Your task to perform on an android device: move a message to another label in the gmail app Image 0: 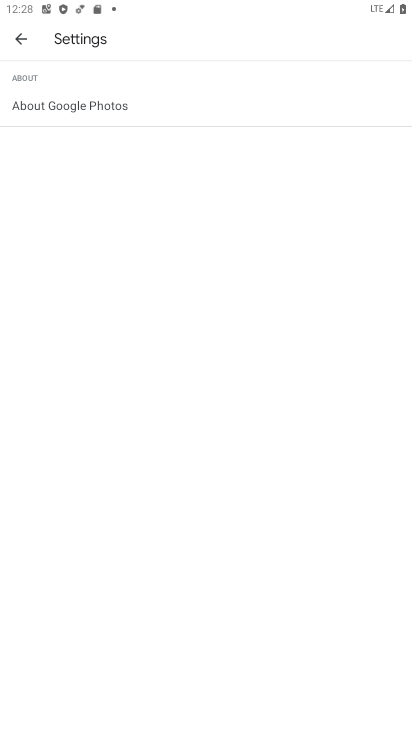
Step 0: press home button
Your task to perform on an android device: move a message to another label in the gmail app Image 1: 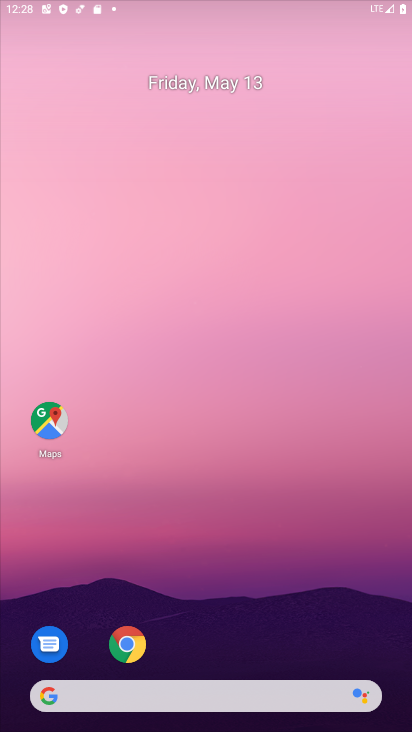
Step 1: drag from (369, 605) to (279, 92)
Your task to perform on an android device: move a message to another label in the gmail app Image 2: 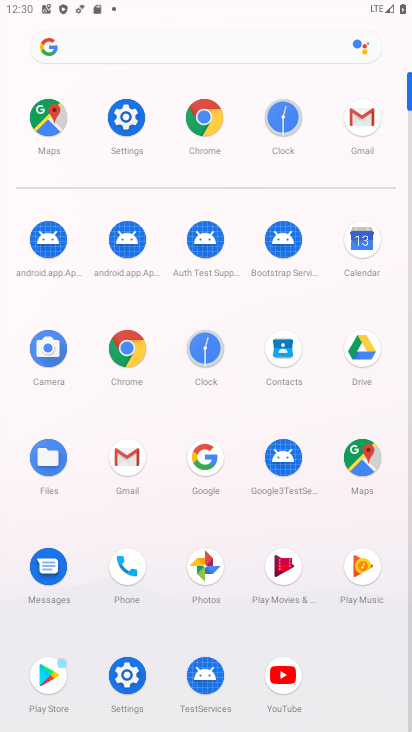
Step 2: click (135, 468)
Your task to perform on an android device: move a message to another label in the gmail app Image 3: 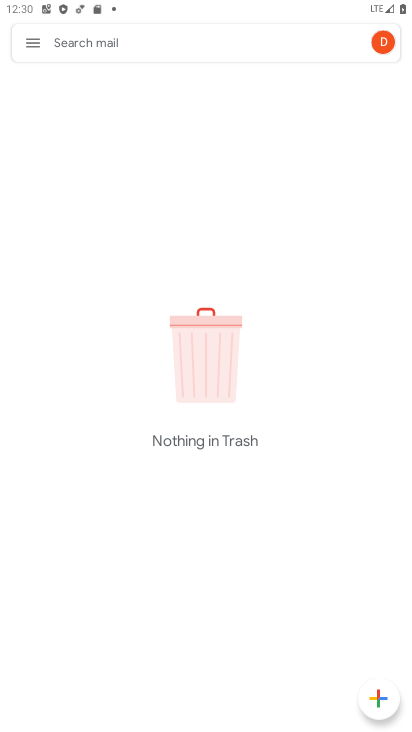
Step 3: click (34, 44)
Your task to perform on an android device: move a message to another label in the gmail app Image 4: 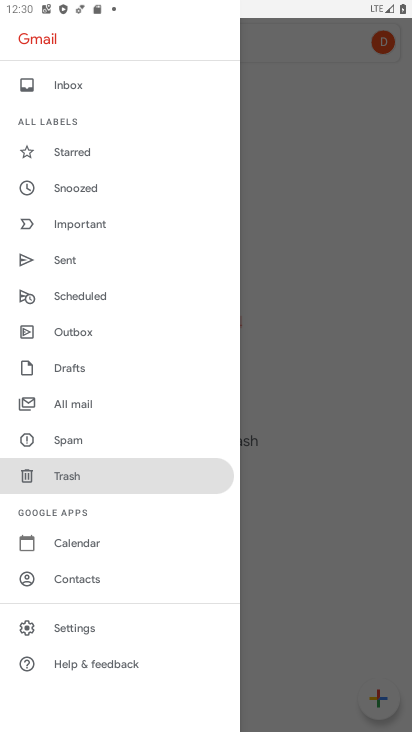
Step 4: click (70, 74)
Your task to perform on an android device: move a message to another label in the gmail app Image 5: 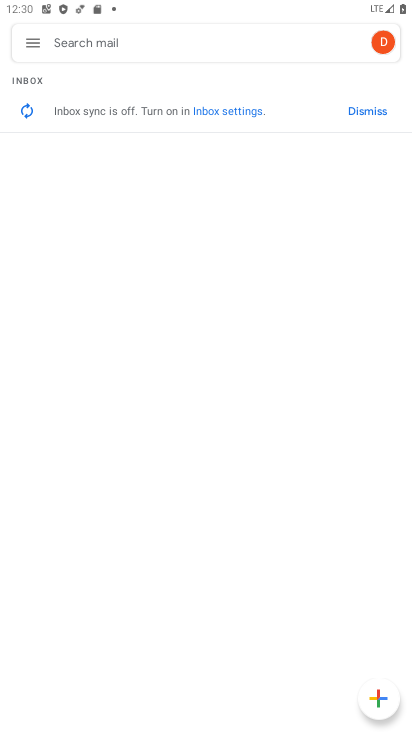
Step 5: task complete